Your task to perform on an android device: make emails show in primary in the gmail app Image 0: 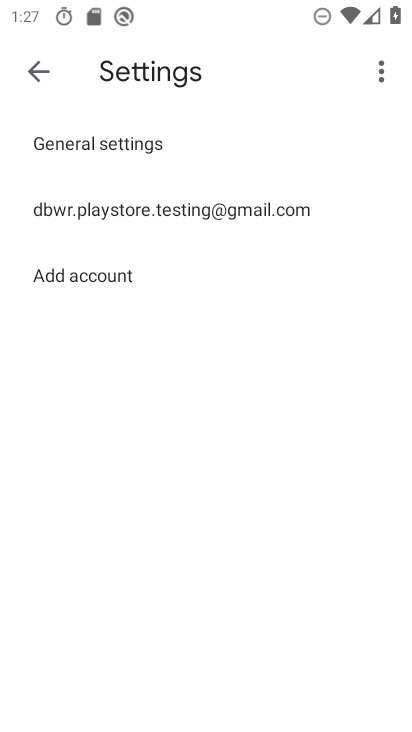
Step 0: click (211, 505)
Your task to perform on an android device: make emails show in primary in the gmail app Image 1: 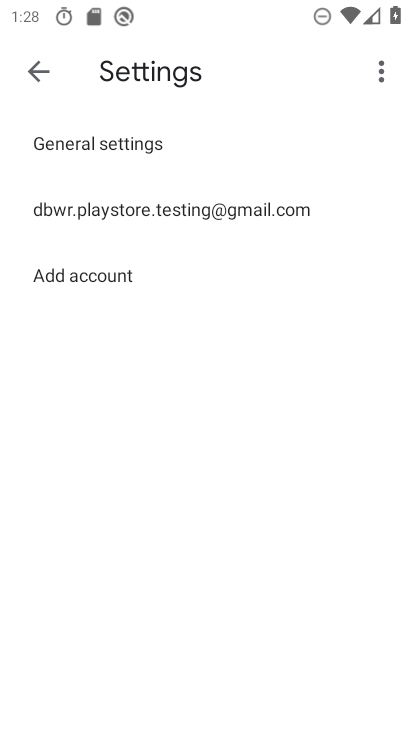
Step 1: click (37, 69)
Your task to perform on an android device: make emails show in primary in the gmail app Image 2: 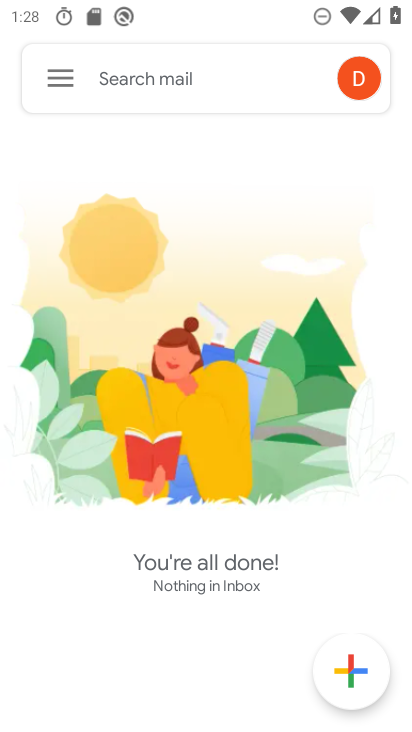
Step 2: click (47, 82)
Your task to perform on an android device: make emails show in primary in the gmail app Image 3: 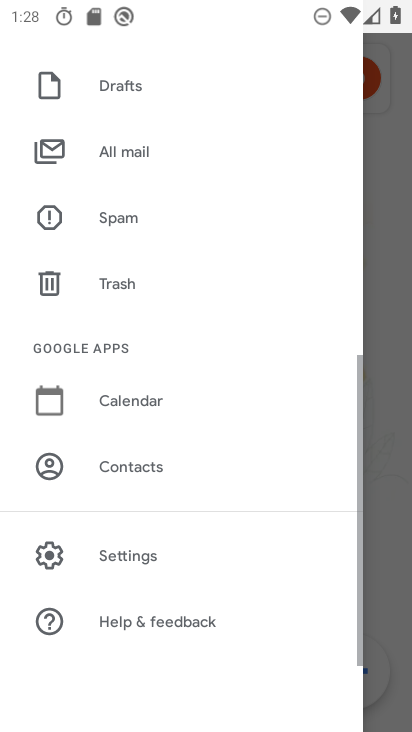
Step 3: drag from (112, 155) to (126, 725)
Your task to perform on an android device: make emails show in primary in the gmail app Image 4: 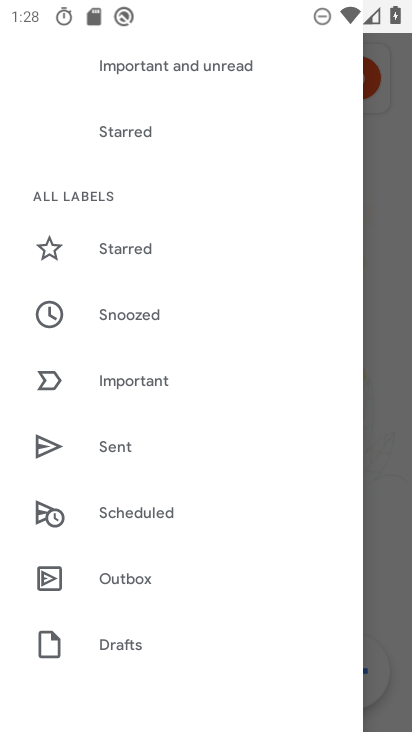
Step 4: drag from (145, 225) to (142, 696)
Your task to perform on an android device: make emails show in primary in the gmail app Image 5: 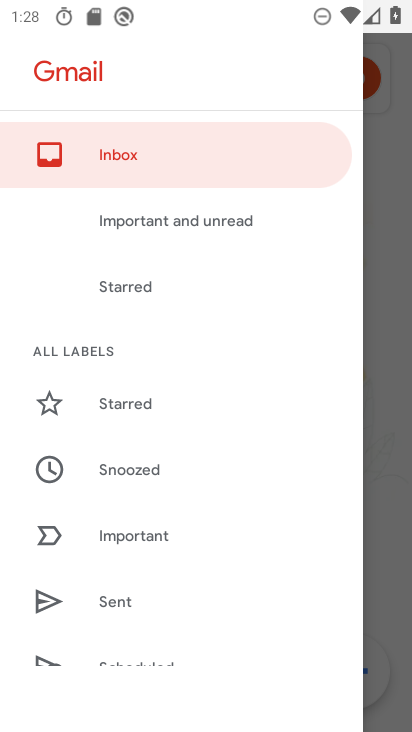
Step 5: click (122, 164)
Your task to perform on an android device: make emails show in primary in the gmail app Image 6: 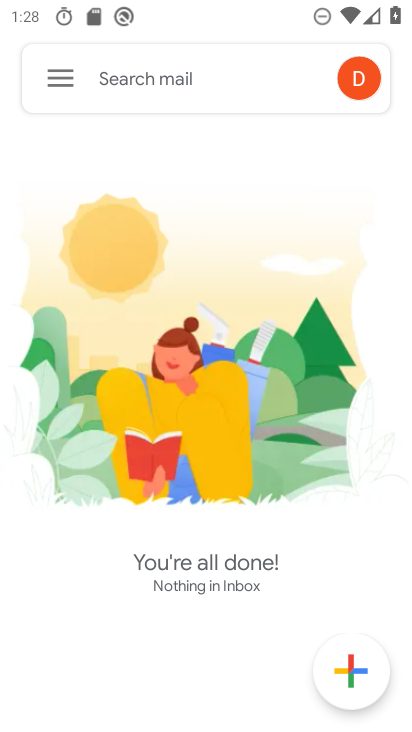
Step 6: task complete